Your task to perform on an android device: Open calendar and show me the third week of next month Image 0: 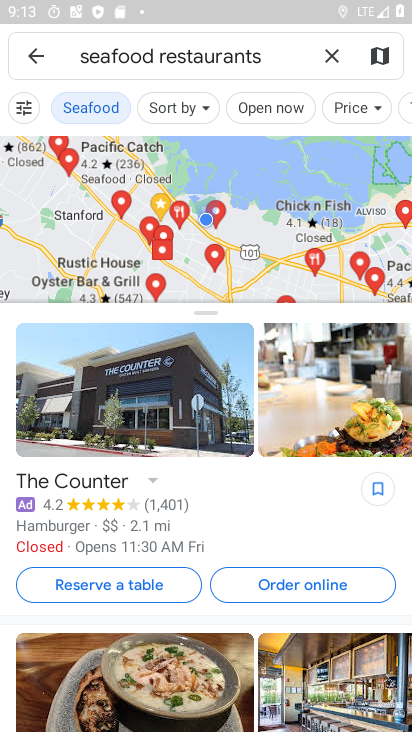
Step 0: press back button
Your task to perform on an android device: Open calendar and show me the third week of next month Image 1: 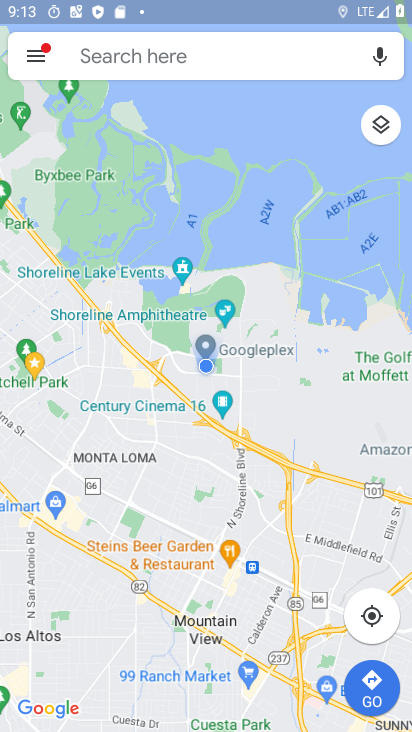
Step 1: press back button
Your task to perform on an android device: Open calendar and show me the third week of next month Image 2: 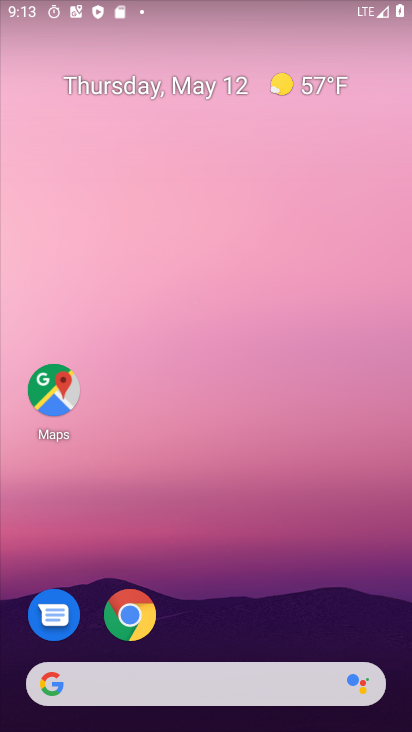
Step 2: drag from (203, 412) to (223, 55)
Your task to perform on an android device: Open calendar and show me the third week of next month Image 3: 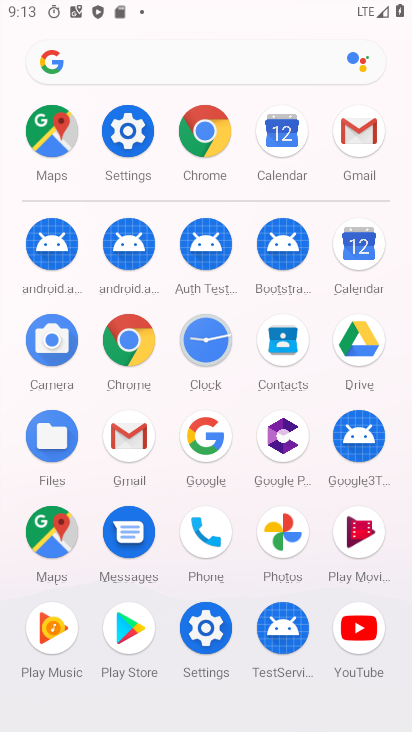
Step 3: drag from (9, 571) to (30, 245)
Your task to perform on an android device: Open calendar and show me the third week of next month Image 4: 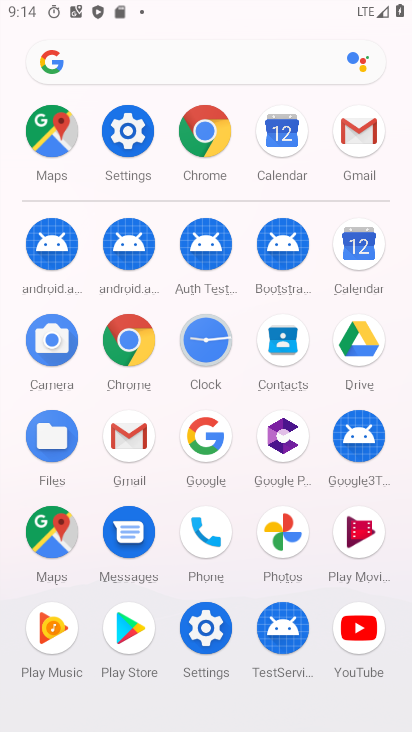
Step 4: click (365, 238)
Your task to perform on an android device: Open calendar and show me the third week of next month Image 5: 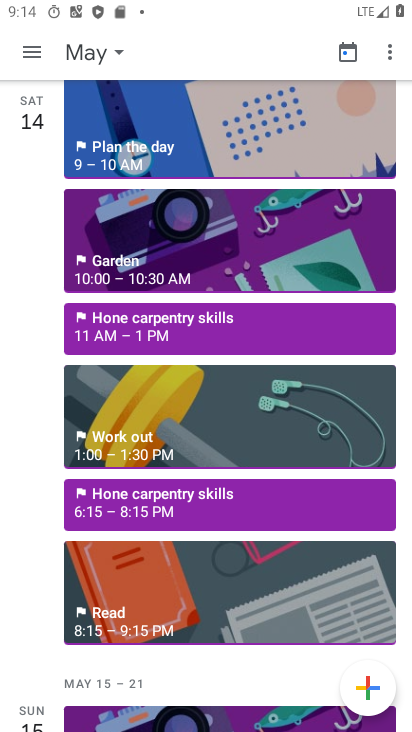
Step 5: click (94, 49)
Your task to perform on an android device: Open calendar and show me the third week of next month Image 6: 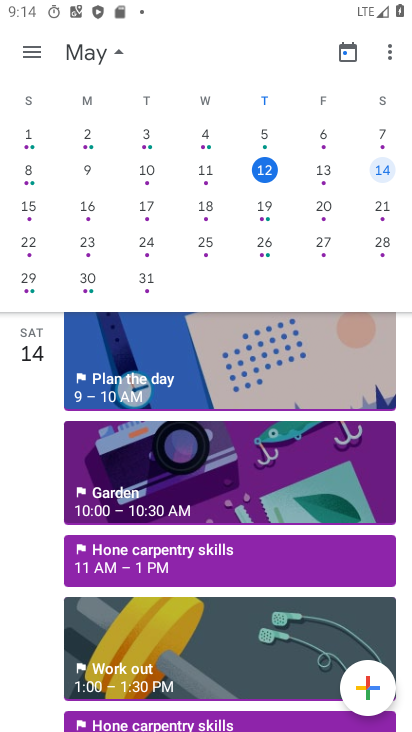
Step 6: drag from (368, 227) to (0, 213)
Your task to perform on an android device: Open calendar and show me the third week of next month Image 7: 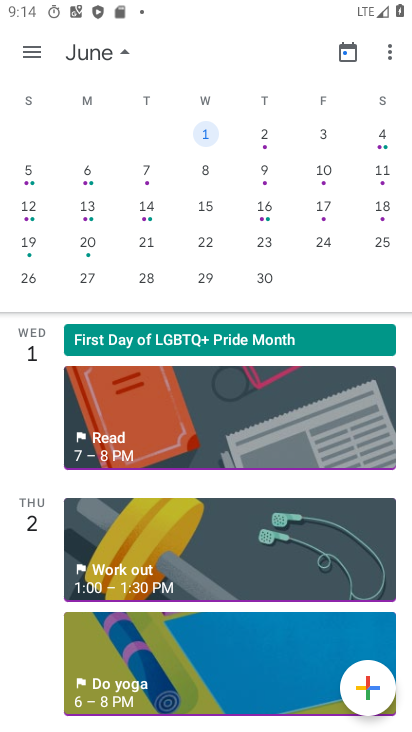
Step 7: click (30, 201)
Your task to perform on an android device: Open calendar and show me the third week of next month Image 8: 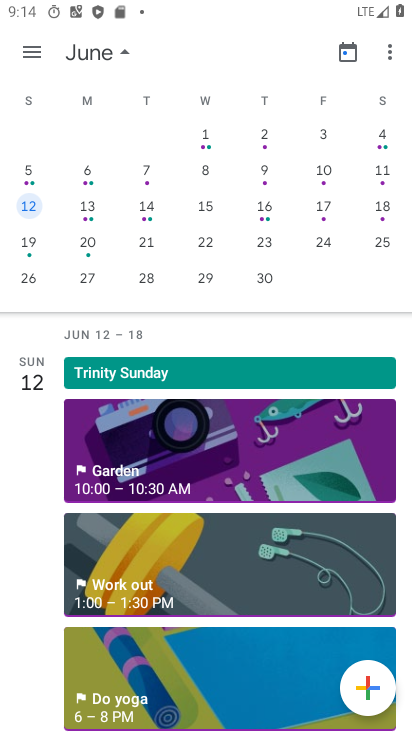
Step 8: click (26, 41)
Your task to perform on an android device: Open calendar and show me the third week of next month Image 9: 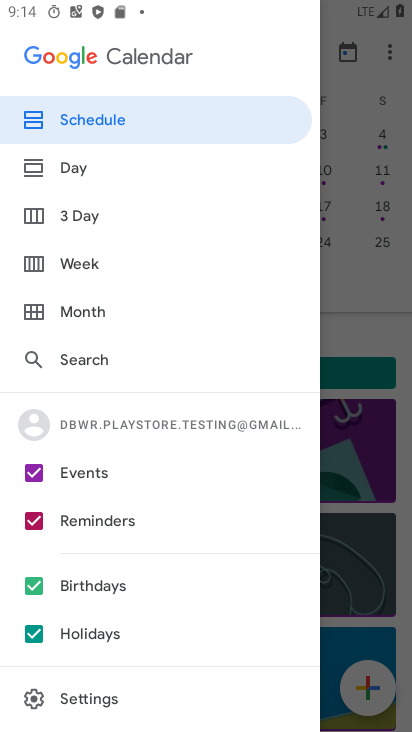
Step 9: click (105, 262)
Your task to perform on an android device: Open calendar and show me the third week of next month Image 10: 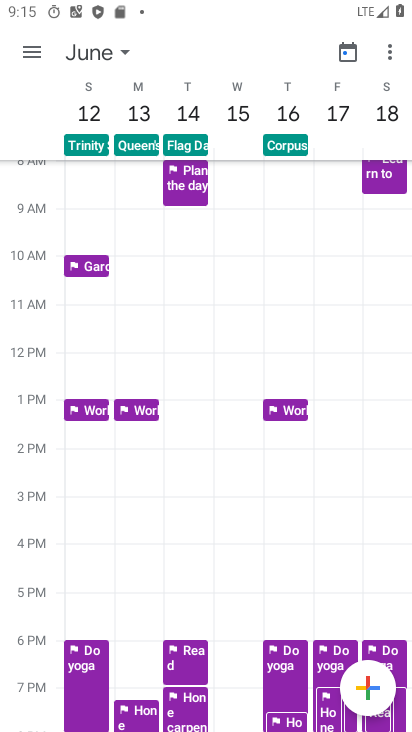
Step 10: task complete